Your task to perform on an android device: empty trash in google photos Image 0: 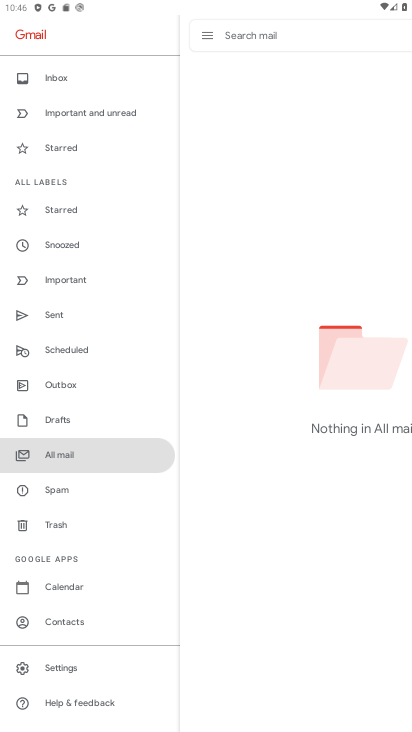
Step 0: press home button
Your task to perform on an android device: empty trash in google photos Image 1: 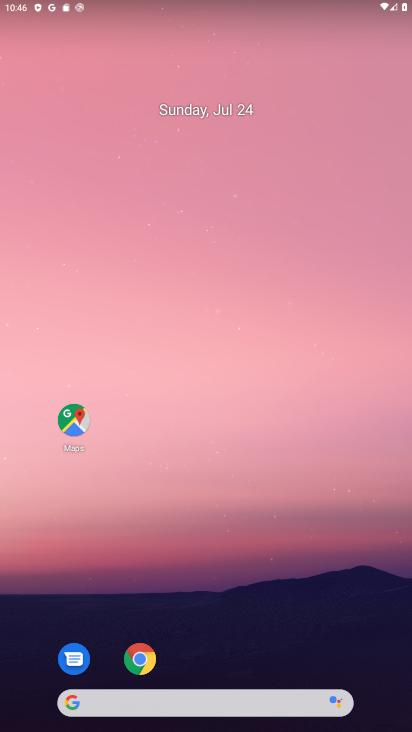
Step 1: drag from (154, 699) to (156, 441)
Your task to perform on an android device: empty trash in google photos Image 2: 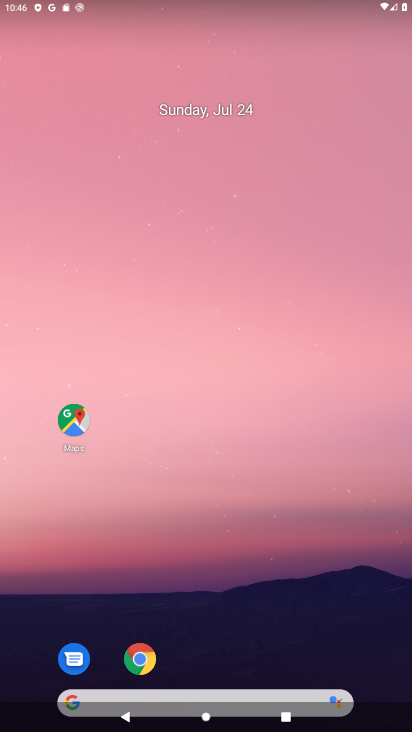
Step 2: drag from (153, 673) to (233, 378)
Your task to perform on an android device: empty trash in google photos Image 3: 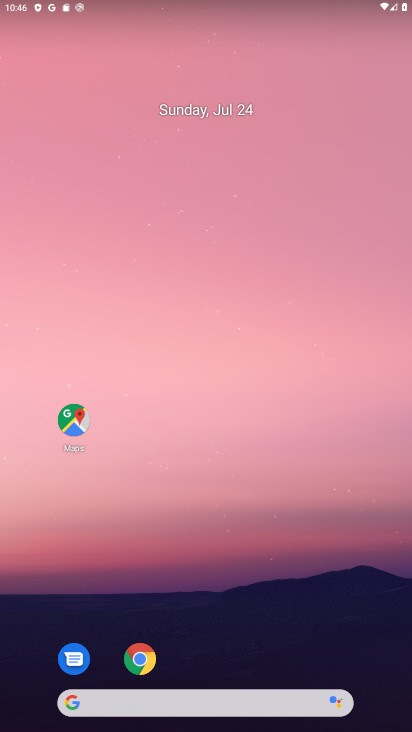
Step 3: drag from (186, 627) to (322, 68)
Your task to perform on an android device: empty trash in google photos Image 4: 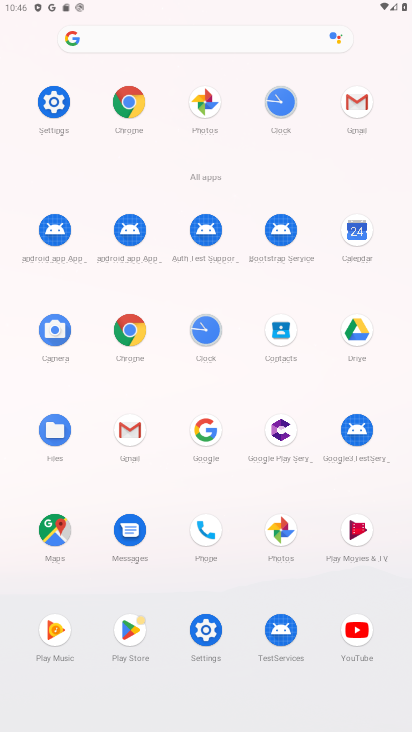
Step 4: drag from (212, 701) to (253, 476)
Your task to perform on an android device: empty trash in google photos Image 5: 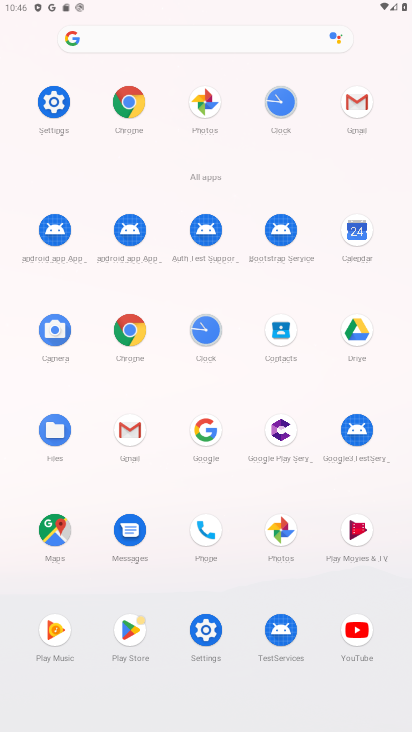
Step 5: click (275, 530)
Your task to perform on an android device: empty trash in google photos Image 6: 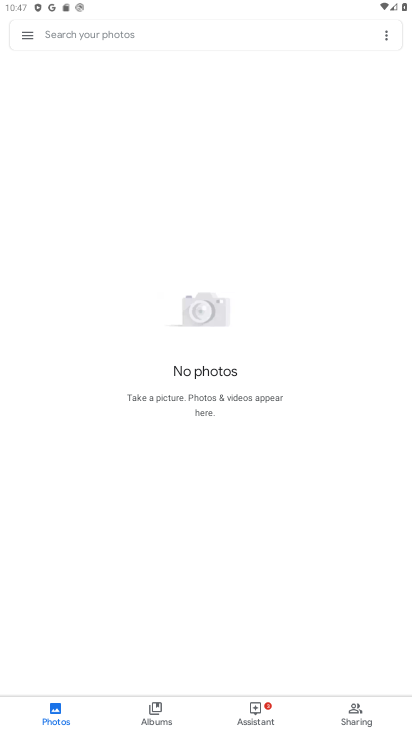
Step 6: click (35, 34)
Your task to perform on an android device: empty trash in google photos Image 7: 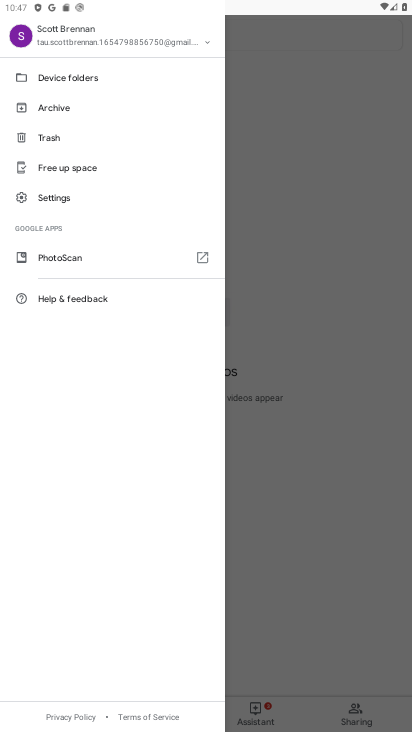
Step 7: click (63, 136)
Your task to perform on an android device: empty trash in google photos Image 8: 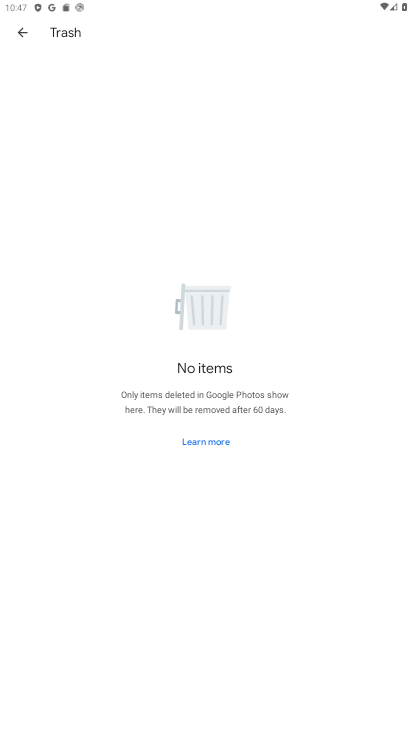
Step 8: task complete